Your task to perform on an android device: open app "eBay: The shopping marketplace" (install if not already installed) and enter user name: "articulated@icloud.com" and password: "excluding" Image 0: 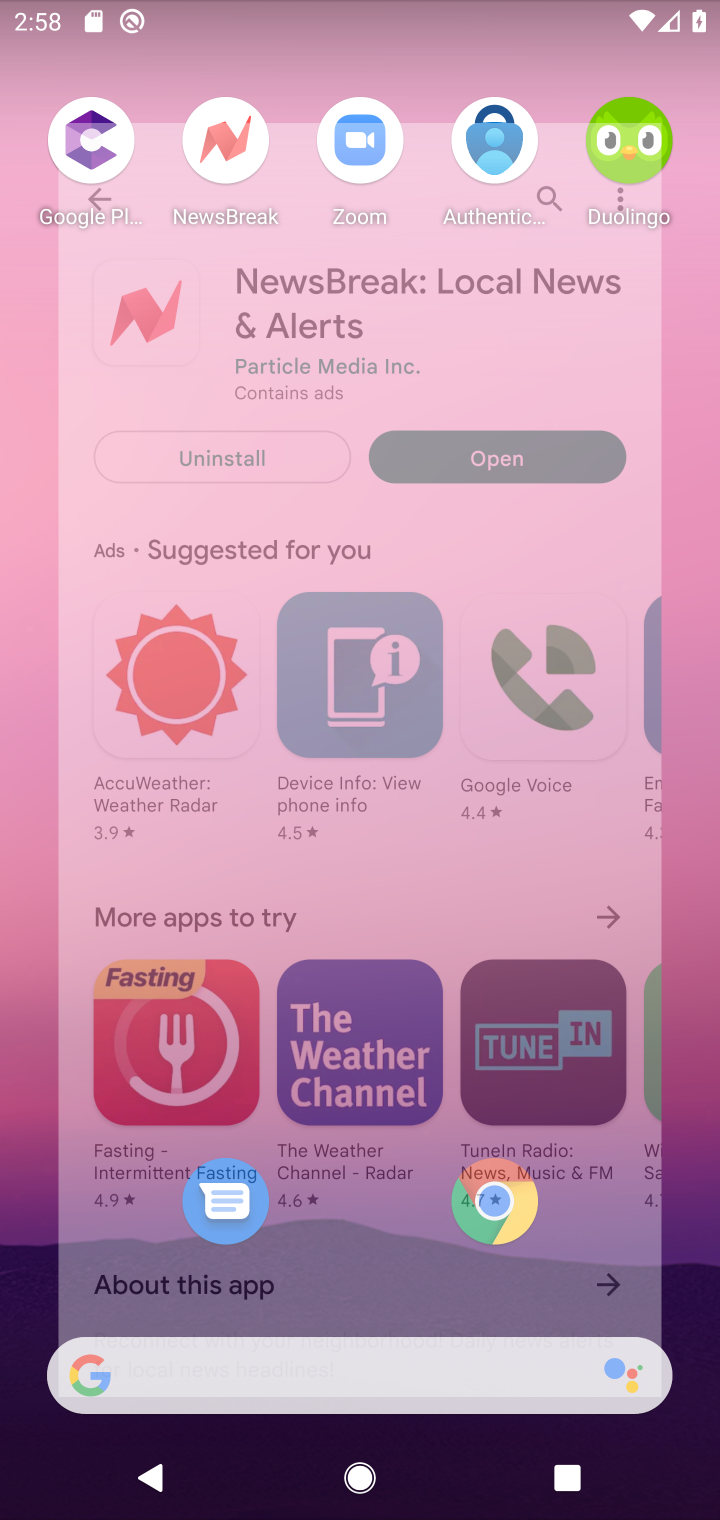
Step 0: press home button
Your task to perform on an android device: open app "eBay: The shopping marketplace" (install if not already installed) and enter user name: "articulated@icloud.com" and password: "excluding" Image 1: 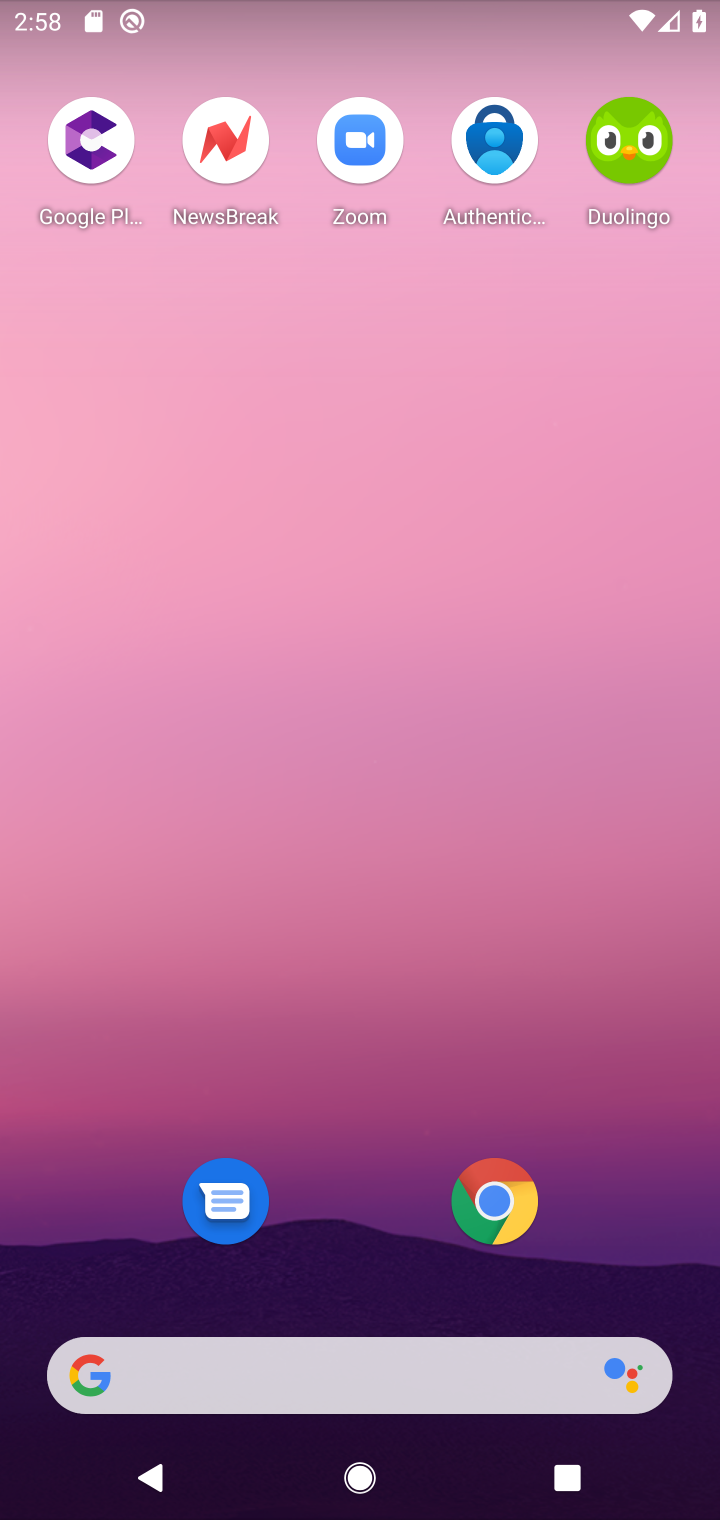
Step 1: drag from (675, 1282) to (600, 259)
Your task to perform on an android device: open app "eBay: The shopping marketplace" (install if not already installed) and enter user name: "articulated@icloud.com" and password: "excluding" Image 2: 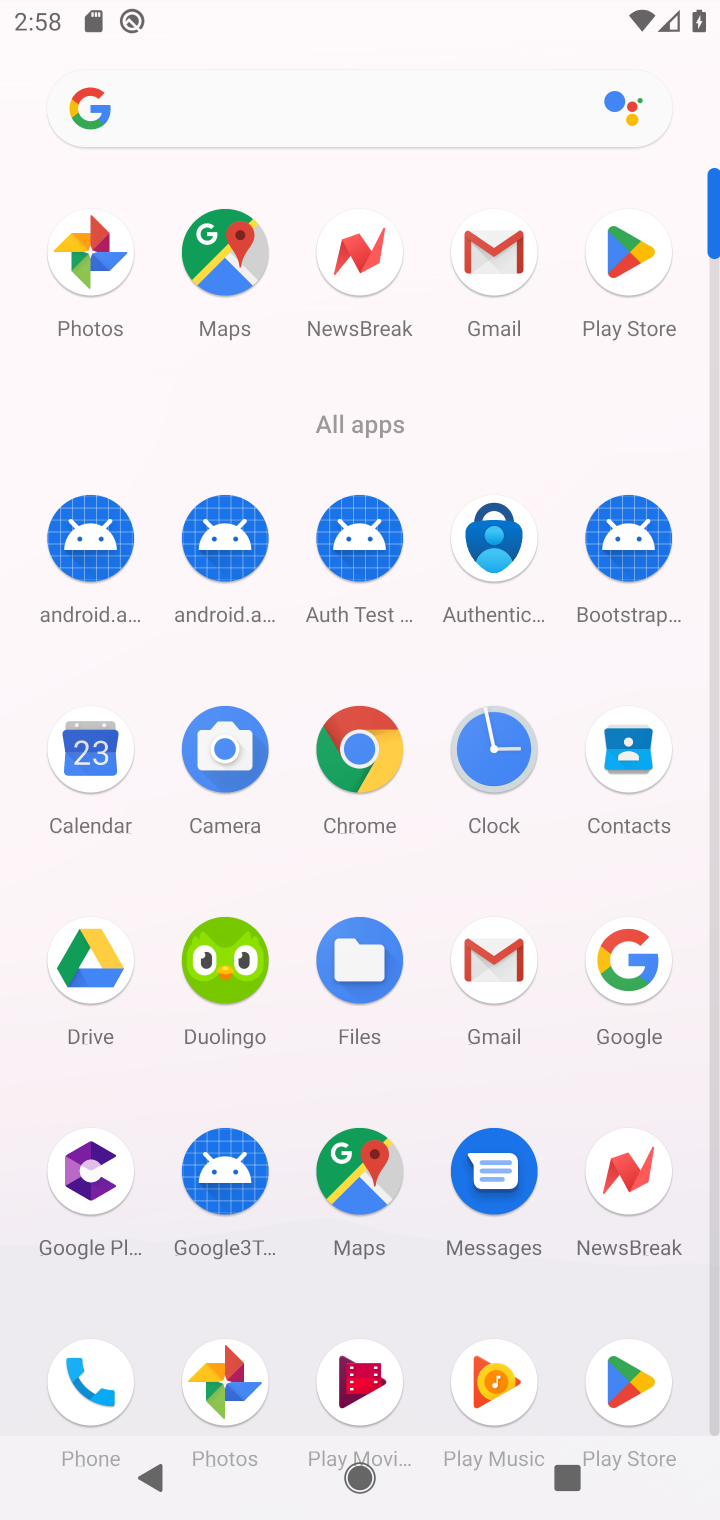
Step 2: click (641, 1389)
Your task to perform on an android device: open app "eBay: The shopping marketplace" (install if not already installed) and enter user name: "articulated@icloud.com" and password: "excluding" Image 3: 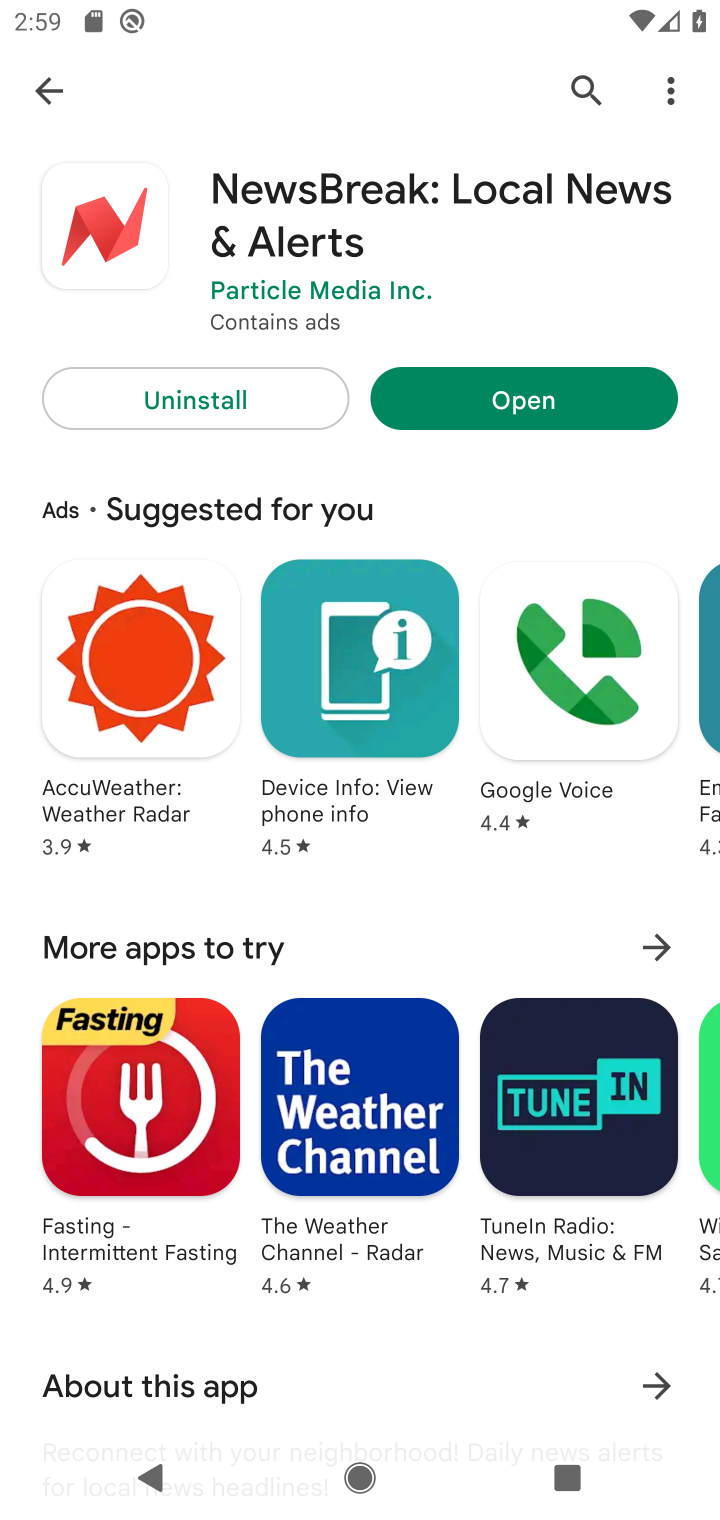
Step 3: click (581, 99)
Your task to perform on an android device: open app "eBay: The shopping marketplace" (install if not already installed) and enter user name: "articulated@icloud.com" and password: "excluding" Image 4: 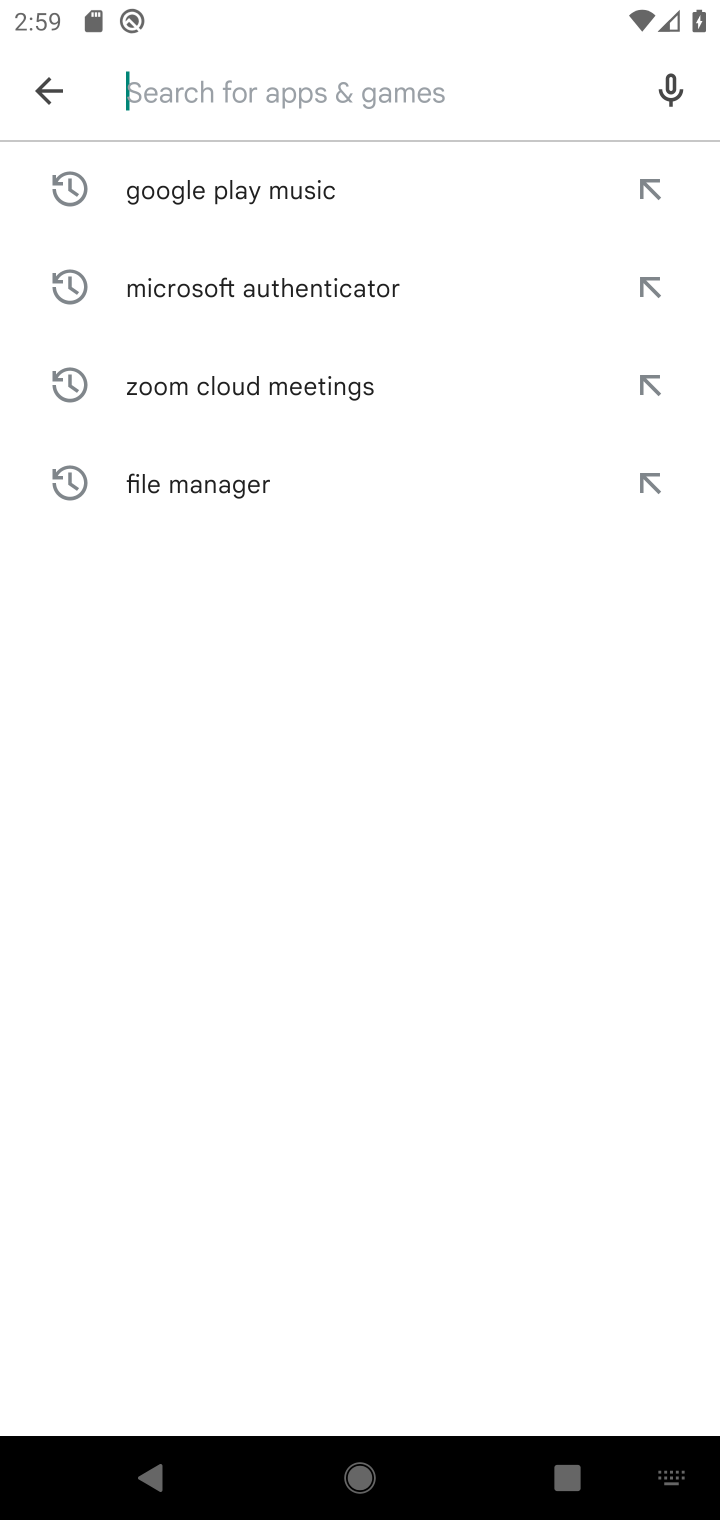
Step 4: type "eBay: The shopping marketplace"
Your task to perform on an android device: open app "eBay: The shopping marketplace" (install if not already installed) and enter user name: "articulated@icloud.com" and password: "excluding" Image 5: 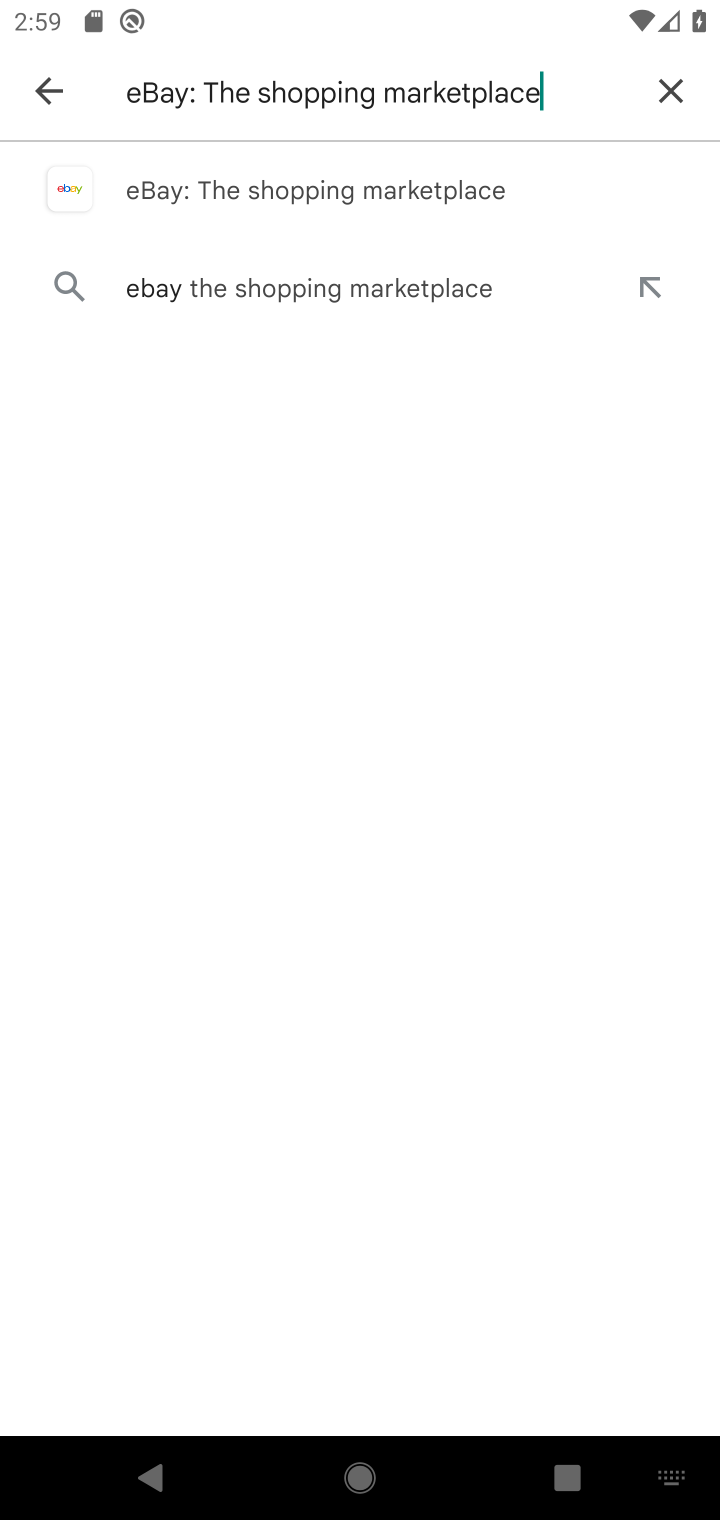
Step 5: click (263, 166)
Your task to perform on an android device: open app "eBay: The shopping marketplace" (install if not already installed) and enter user name: "articulated@icloud.com" and password: "excluding" Image 6: 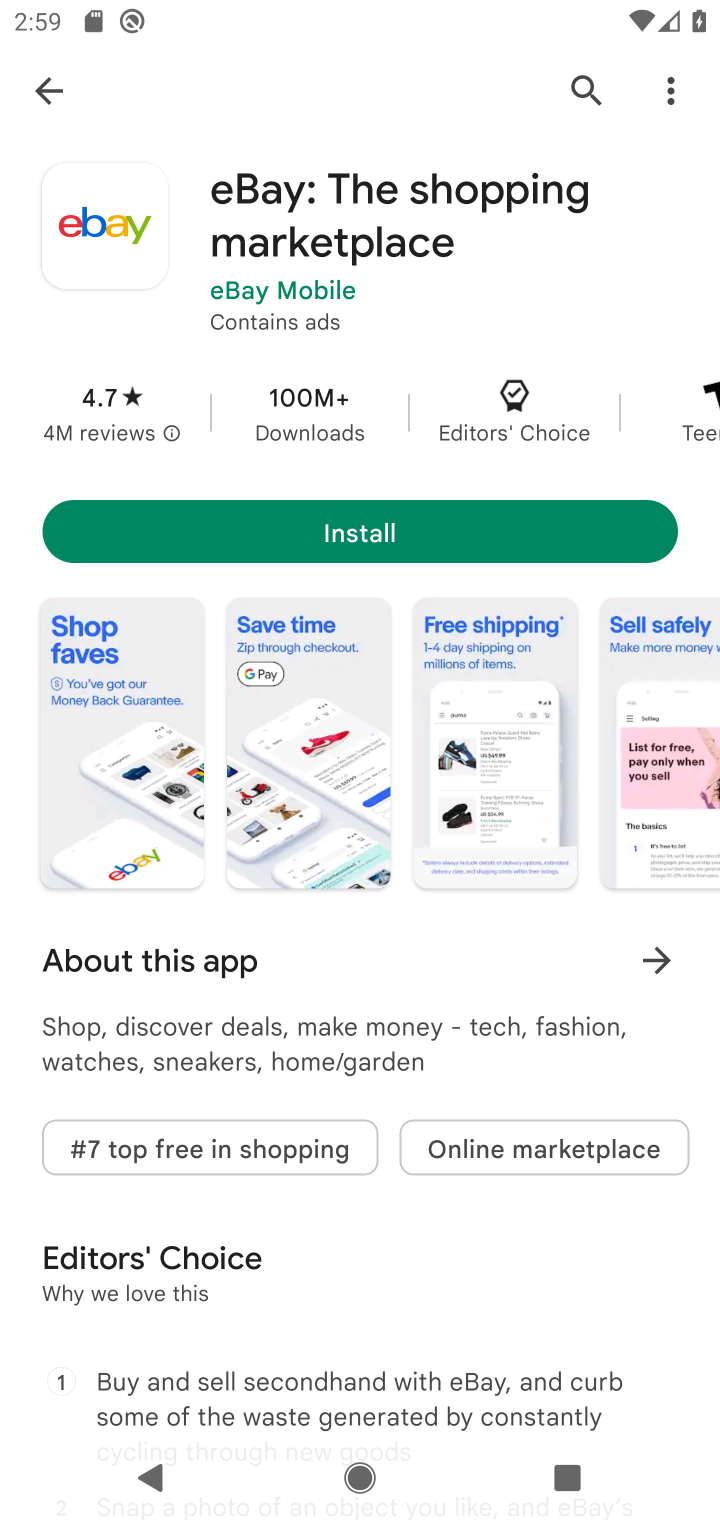
Step 6: click (352, 528)
Your task to perform on an android device: open app "eBay: The shopping marketplace" (install if not already installed) and enter user name: "articulated@icloud.com" and password: "excluding" Image 7: 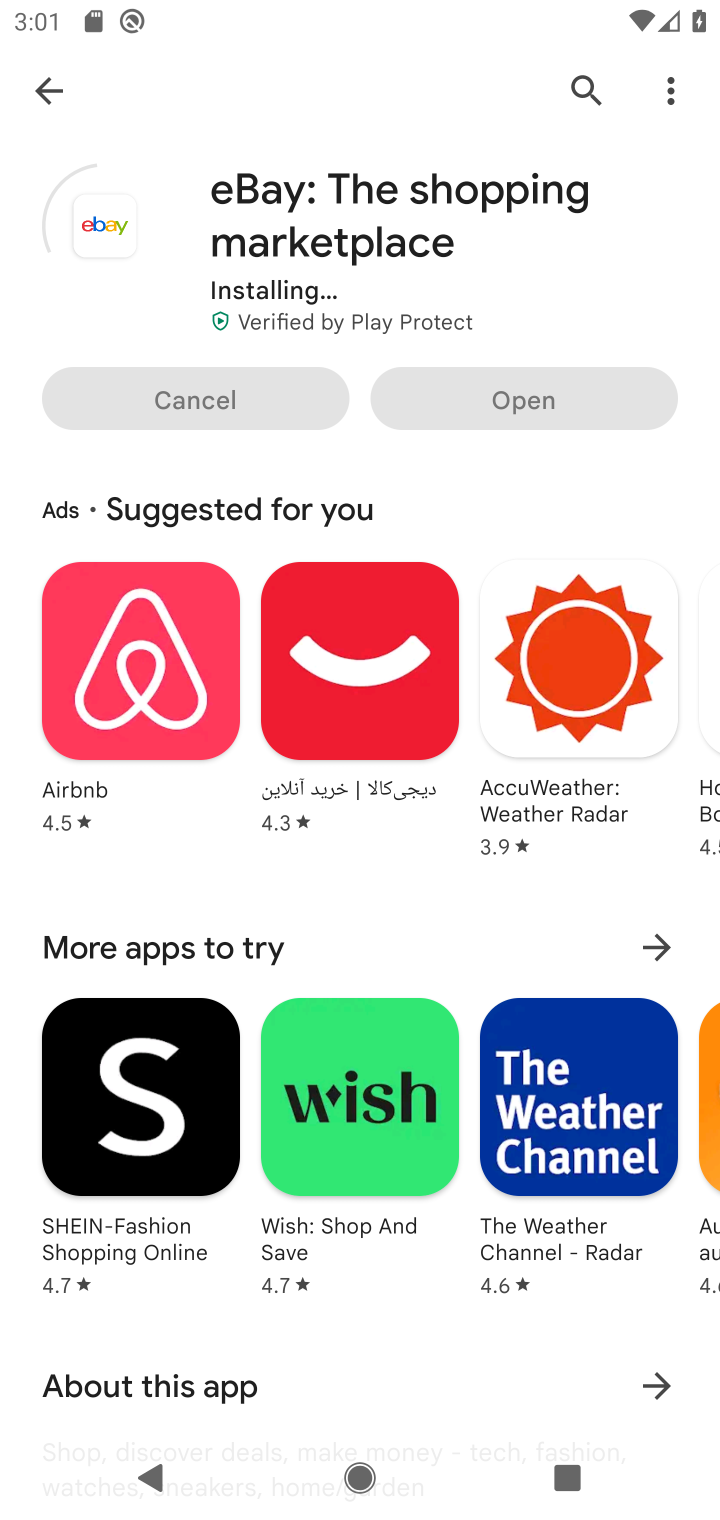
Step 7: click (358, 441)
Your task to perform on an android device: open app "eBay: The shopping marketplace" (install if not already installed) and enter user name: "articulated@icloud.com" and password: "excluding" Image 8: 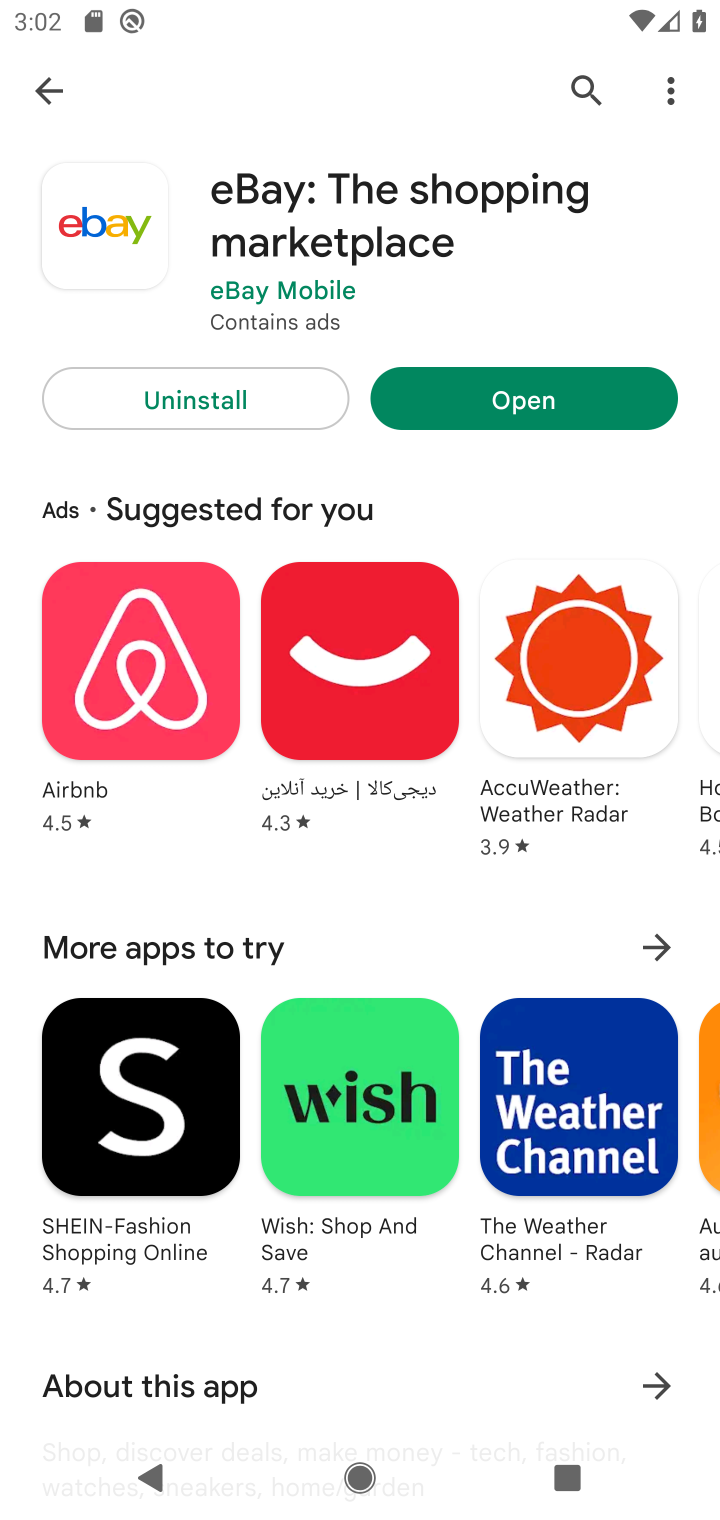
Step 8: click (519, 409)
Your task to perform on an android device: open app "eBay: The shopping marketplace" (install if not already installed) and enter user name: "articulated@icloud.com" and password: "excluding" Image 9: 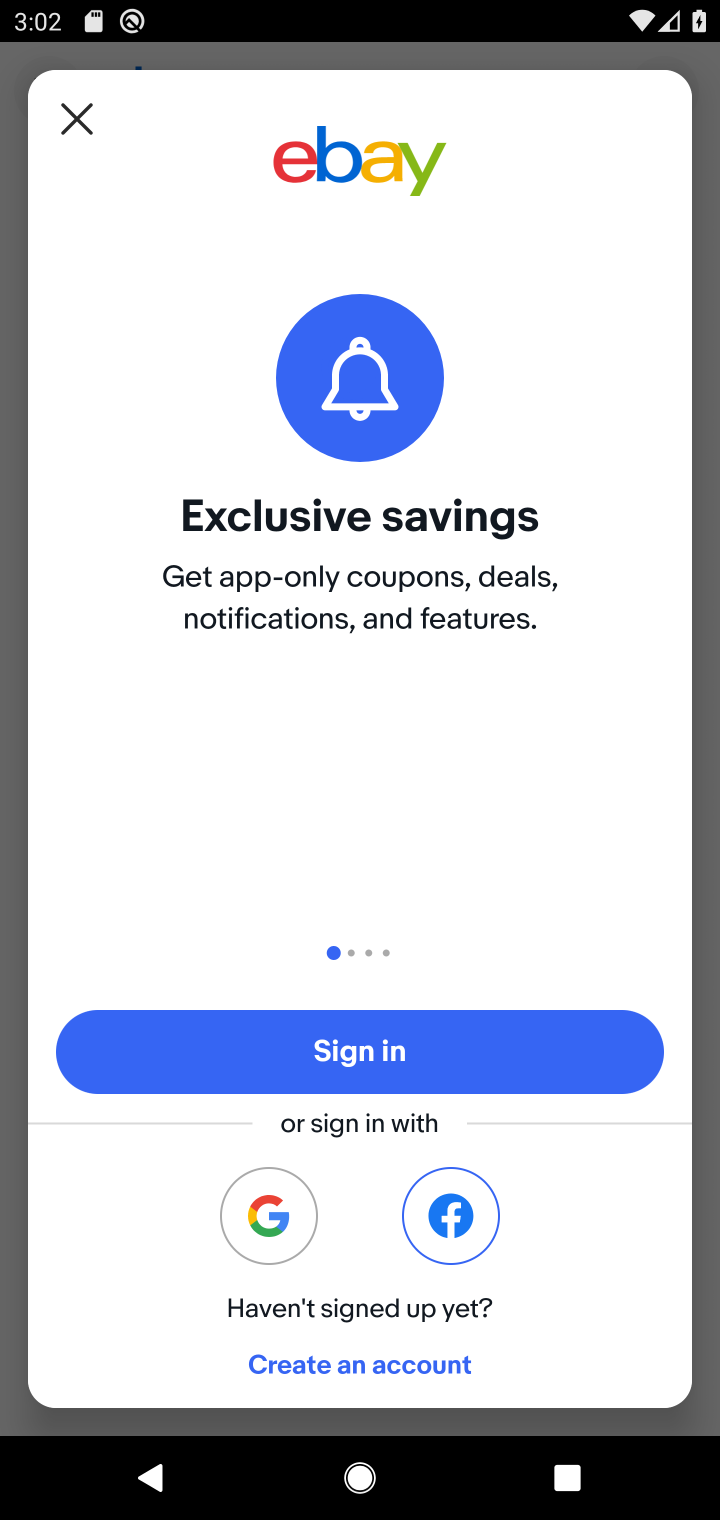
Step 9: click (76, 110)
Your task to perform on an android device: open app "eBay: The shopping marketplace" (install if not already installed) and enter user name: "articulated@icloud.com" and password: "excluding" Image 10: 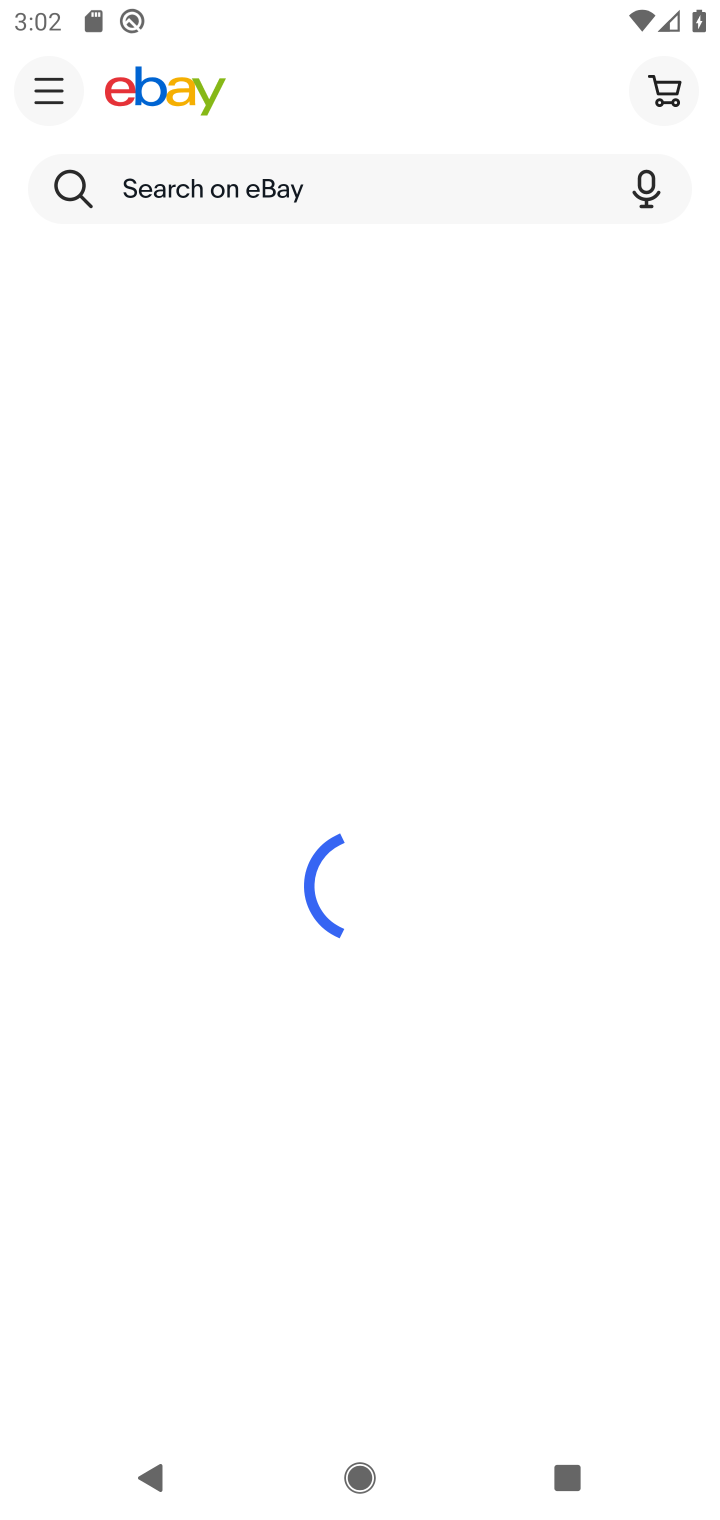
Step 10: click (55, 94)
Your task to perform on an android device: open app "eBay: The shopping marketplace" (install if not already installed) and enter user name: "articulated@icloud.com" and password: "excluding" Image 11: 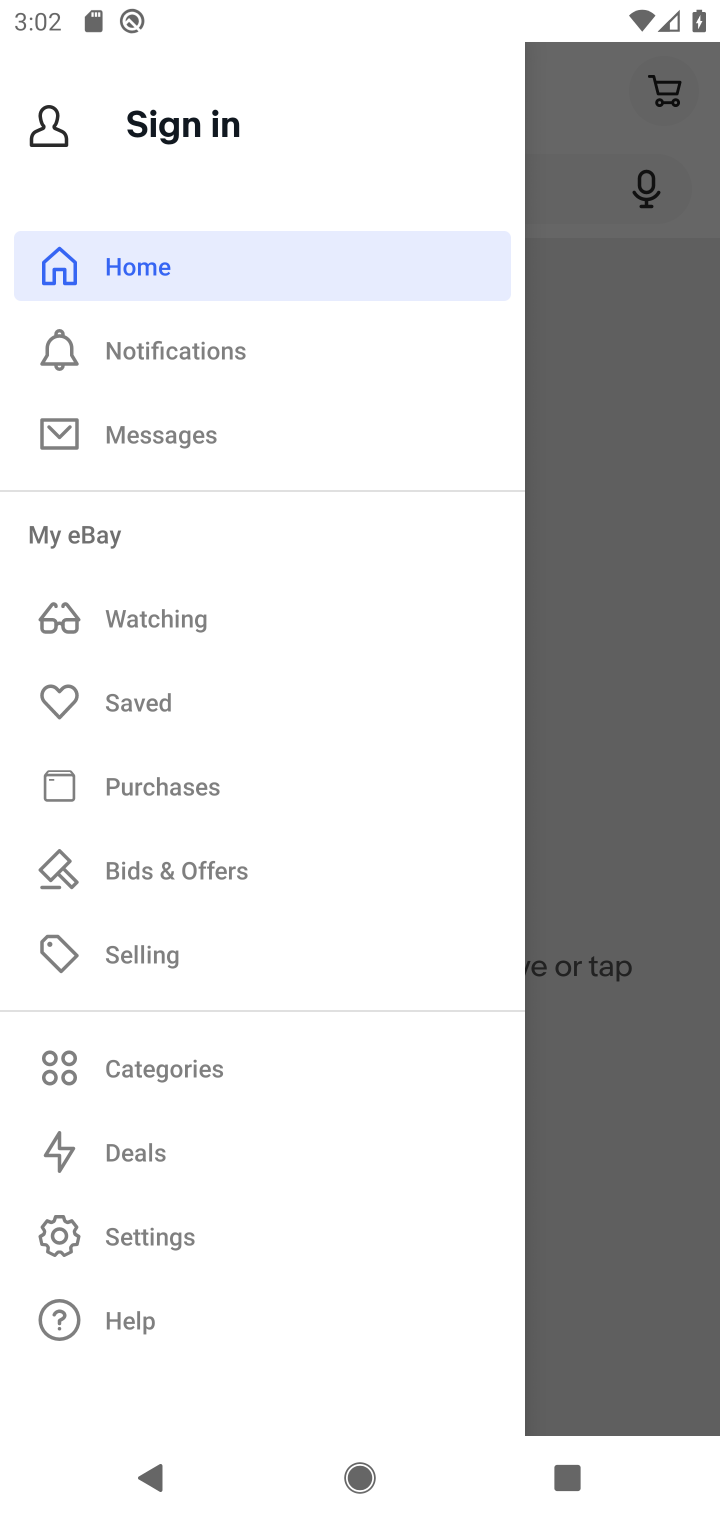
Step 11: click (151, 132)
Your task to perform on an android device: open app "eBay: The shopping marketplace" (install if not already installed) and enter user name: "articulated@icloud.com" and password: "excluding" Image 12: 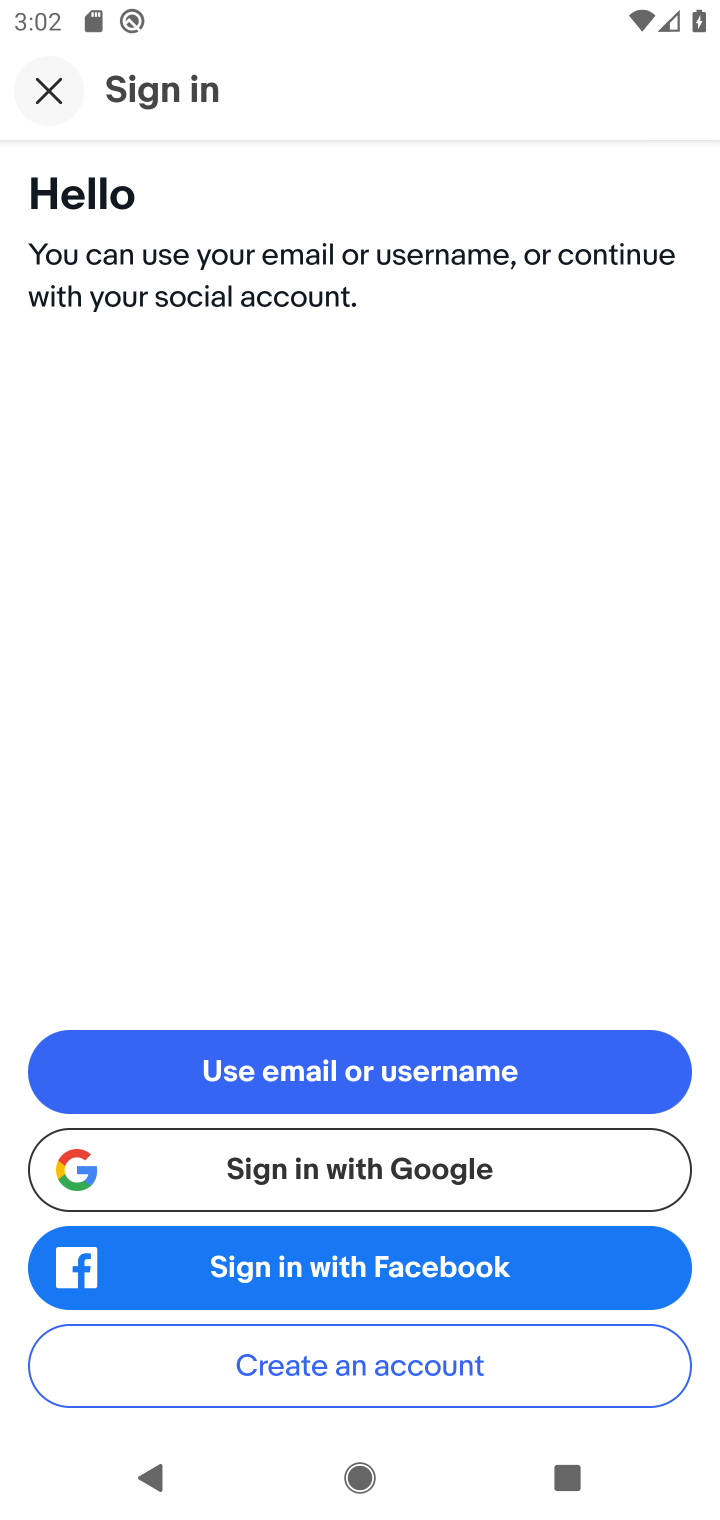
Step 12: click (320, 1067)
Your task to perform on an android device: open app "eBay: The shopping marketplace" (install if not already installed) and enter user name: "articulated@icloud.com" and password: "excluding" Image 13: 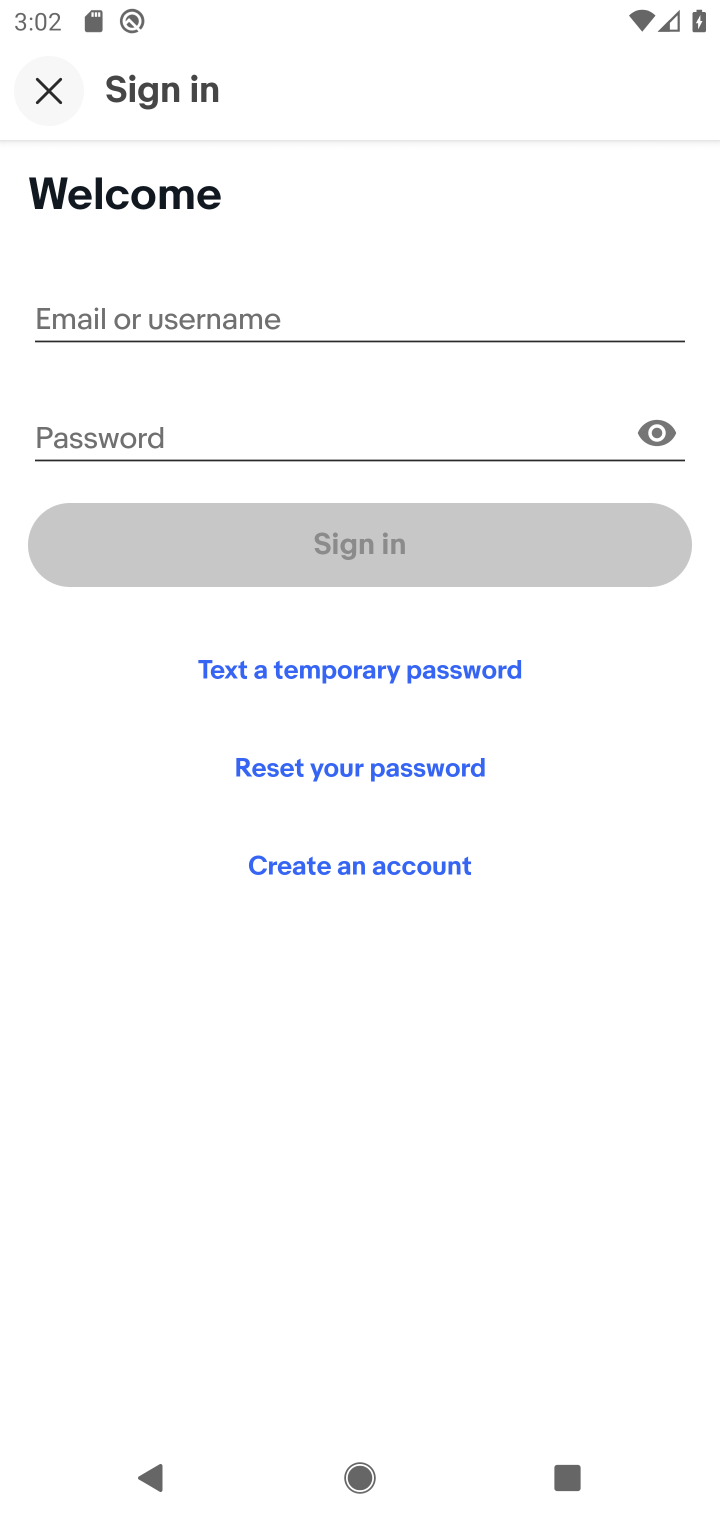
Step 13: click (102, 314)
Your task to perform on an android device: open app "eBay: The shopping marketplace" (install if not already installed) and enter user name: "articulated@icloud.com" and password: "excluding" Image 14: 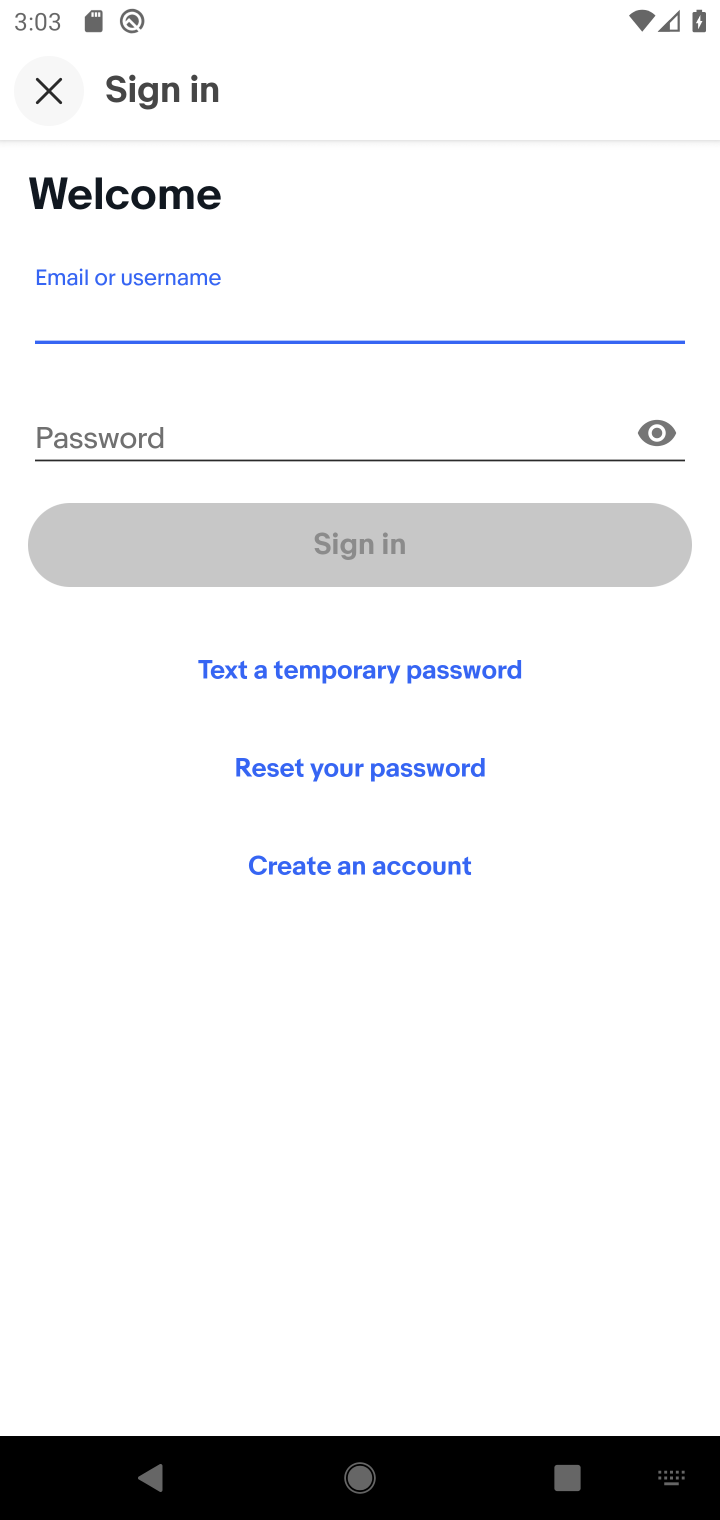
Step 14: type "articulated@icloud.com"
Your task to perform on an android device: open app "eBay: The shopping marketplace" (install if not already installed) and enter user name: "articulated@icloud.com" and password: "excluding" Image 15: 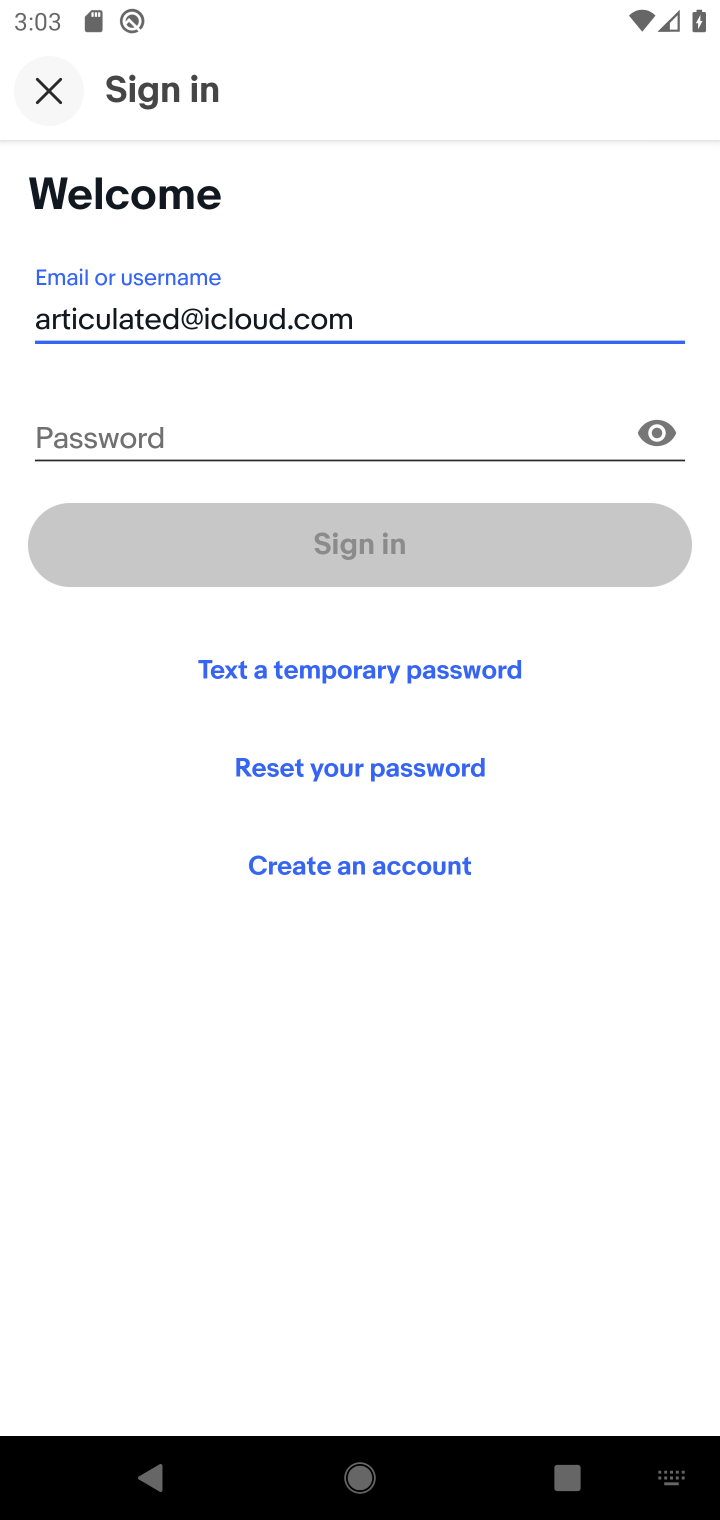
Step 15: click (108, 427)
Your task to perform on an android device: open app "eBay: The shopping marketplace" (install if not already installed) and enter user name: "articulated@icloud.com" and password: "excluding" Image 16: 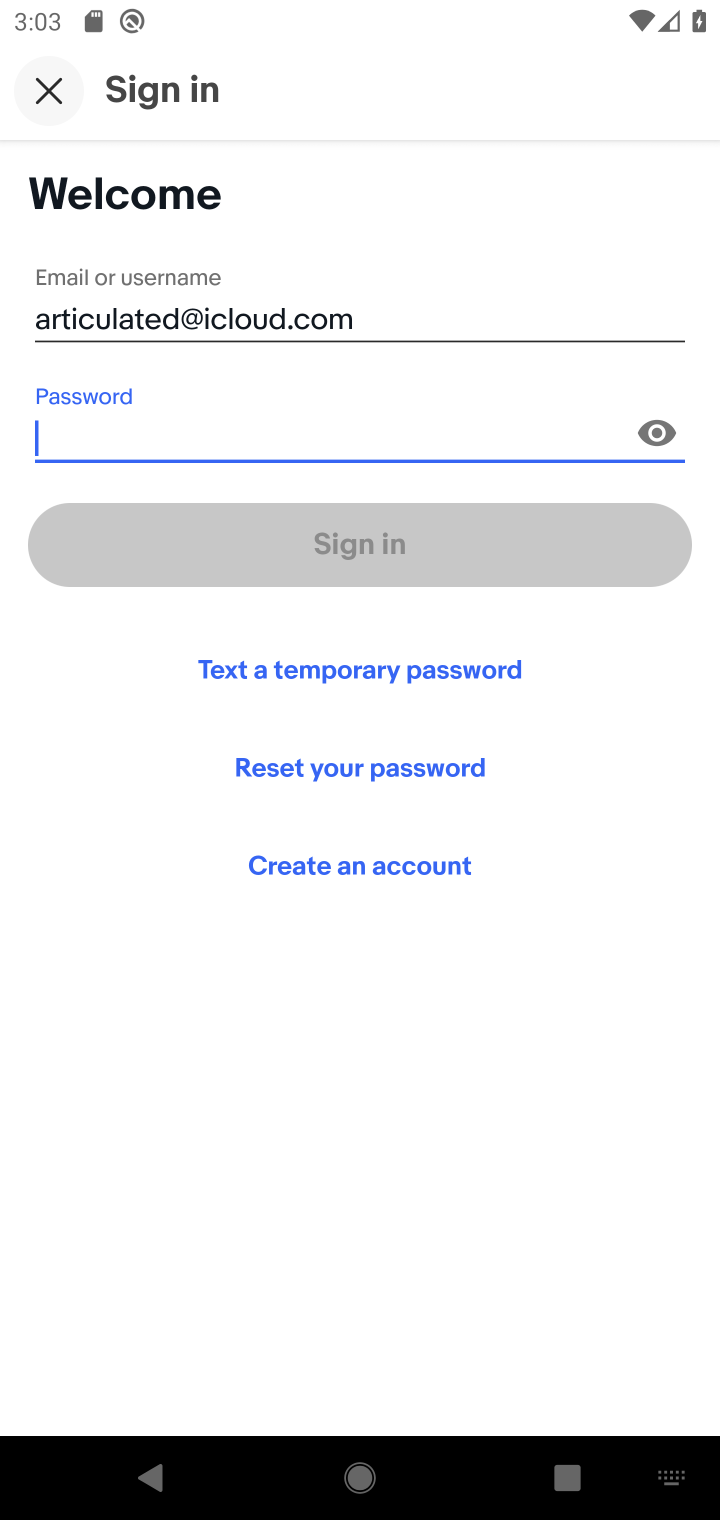
Step 16: type "excluding"
Your task to perform on an android device: open app "eBay: The shopping marketplace" (install if not already installed) and enter user name: "articulated@icloud.com" and password: "excluding" Image 17: 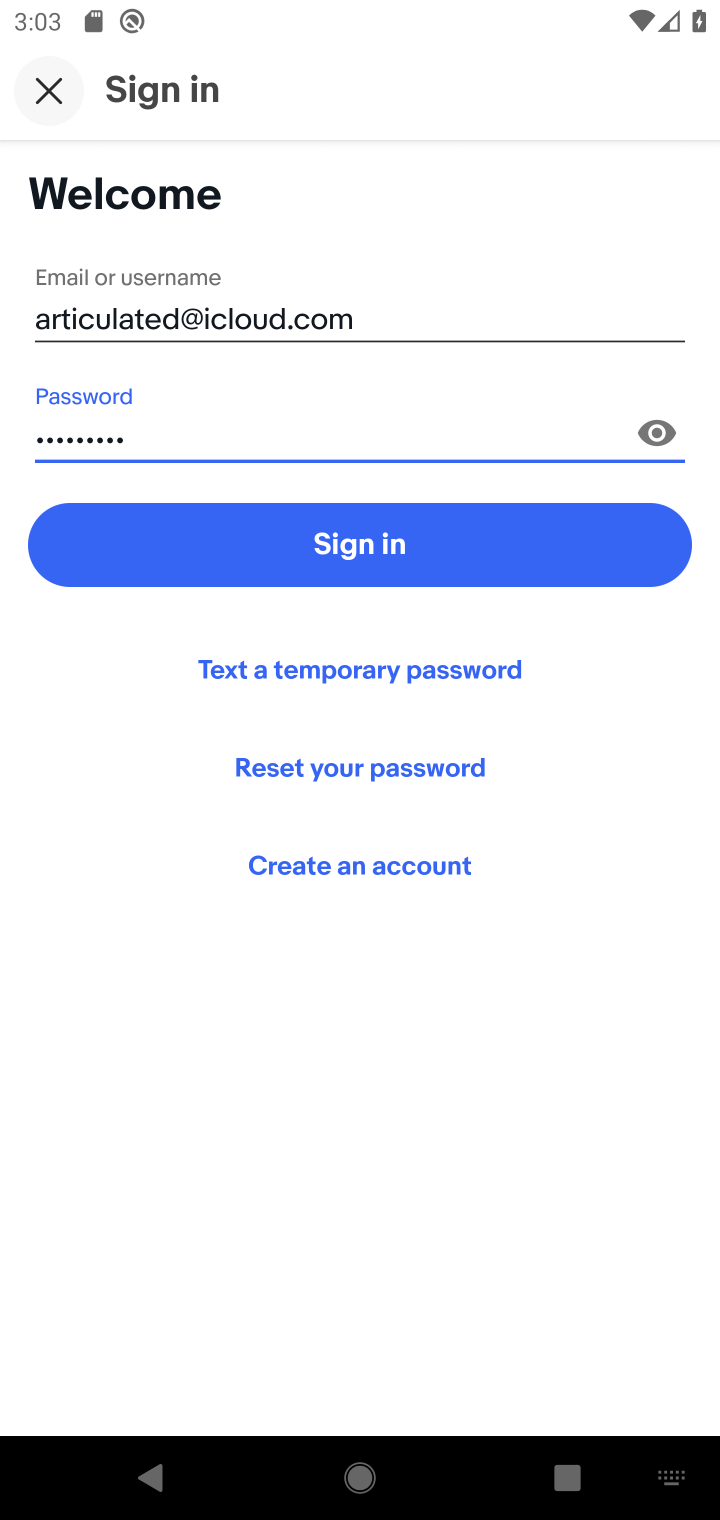
Step 17: task complete